Your task to perform on an android device: Open Yahoo.com Image 0: 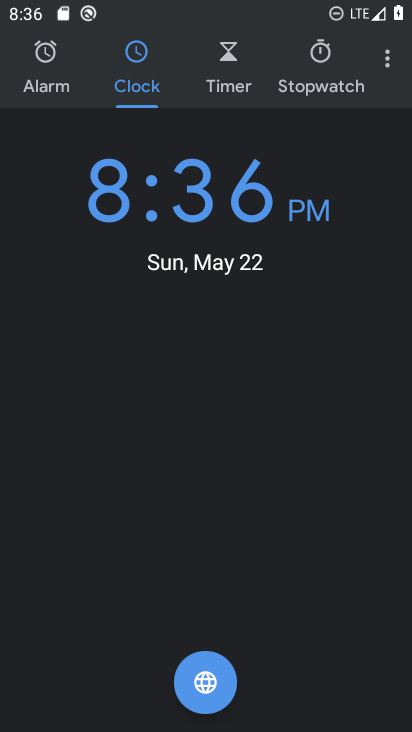
Step 0: press back button
Your task to perform on an android device: Open Yahoo.com Image 1: 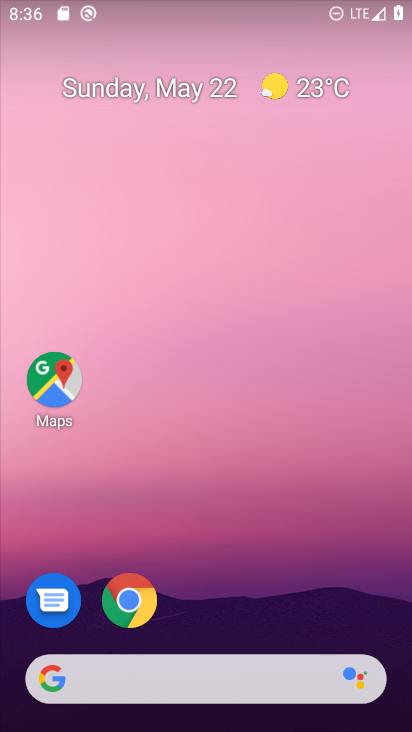
Step 1: drag from (290, 190) to (274, 94)
Your task to perform on an android device: Open Yahoo.com Image 2: 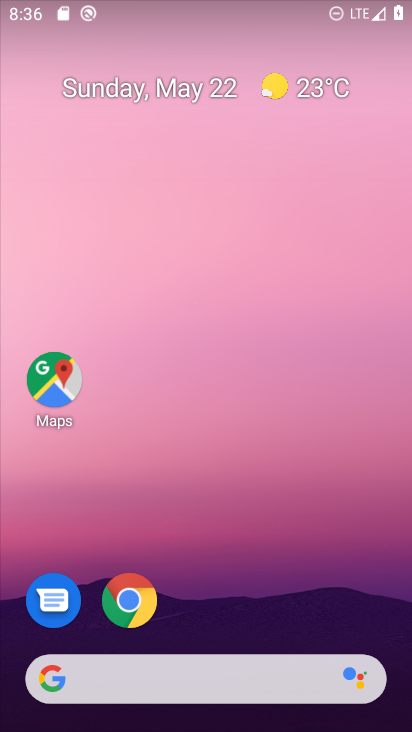
Step 2: drag from (300, 632) to (249, 22)
Your task to perform on an android device: Open Yahoo.com Image 3: 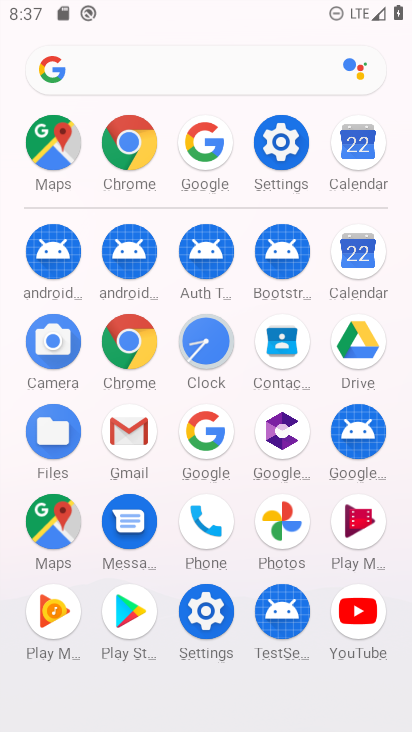
Step 3: click (143, 309)
Your task to perform on an android device: Open Yahoo.com Image 4: 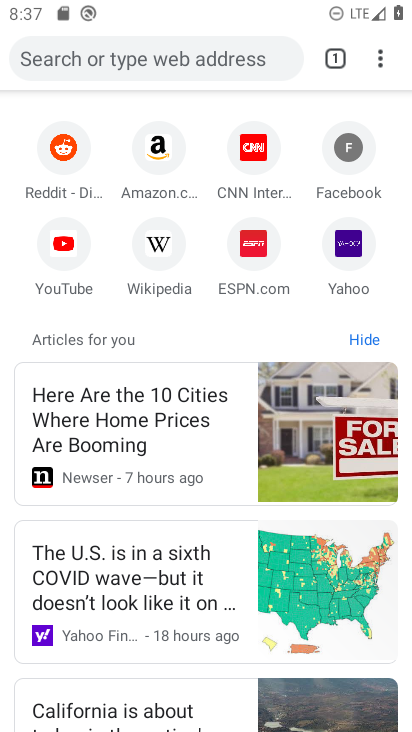
Step 4: click (347, 241)
Your task to perform on an android device: Open Yahoo.com Image 5: 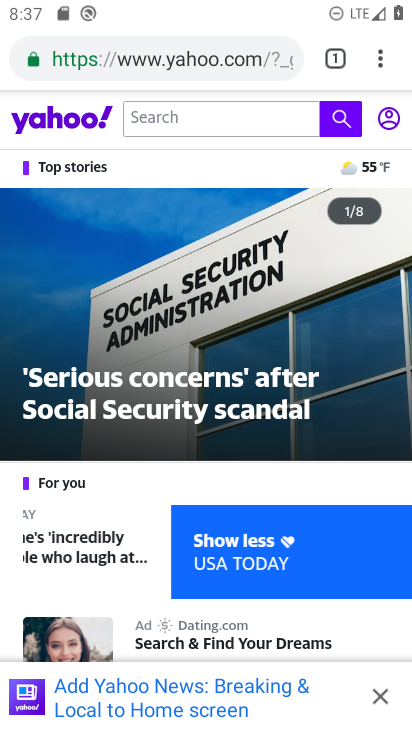
Step 5: task complete